Your task to perform on an android device: What's the weather today? Image 0: 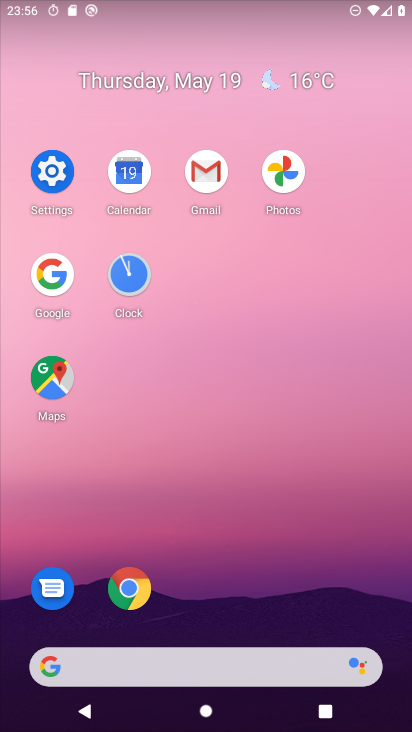
Step 0: click (67, 278)
Your task to perform on an android device: What's the weather today? Image 1: 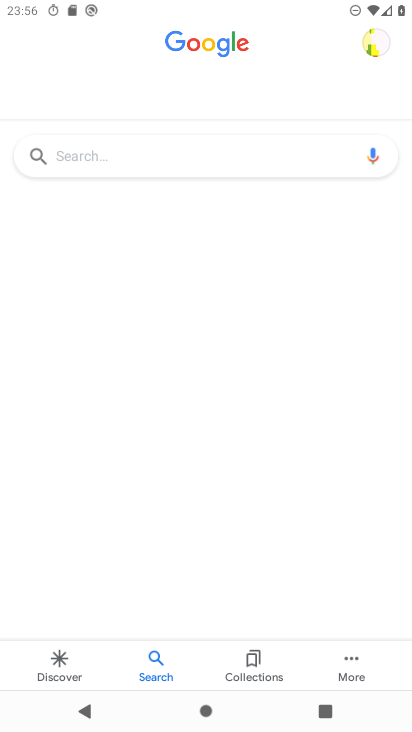
Step 1: click (165, 164)
Your task to perform on an android device: What's the weather today? Image 2: 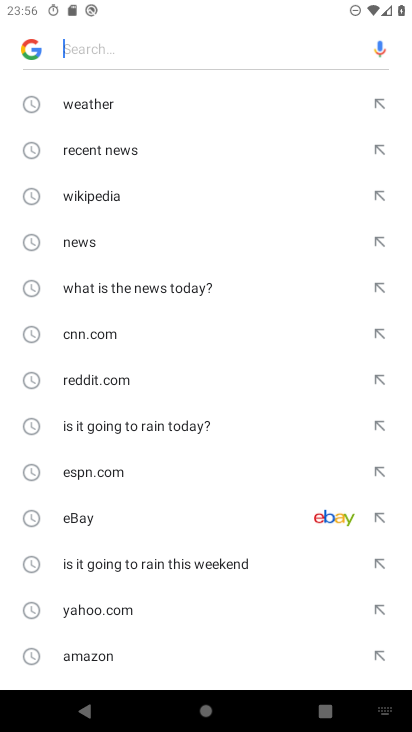
Step 2: click (84, 102)
Your task to perform on an android device: What's the weather today? Image 3: 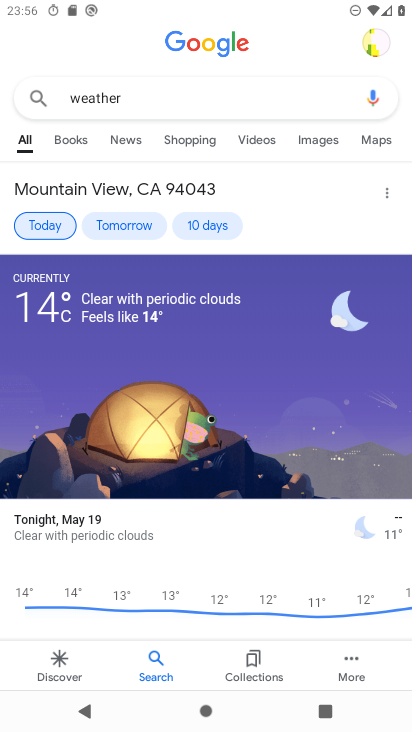
Step 3: task complete